Your task to perform on an android device: remove spam from my inbox in the gmail app Image 0: 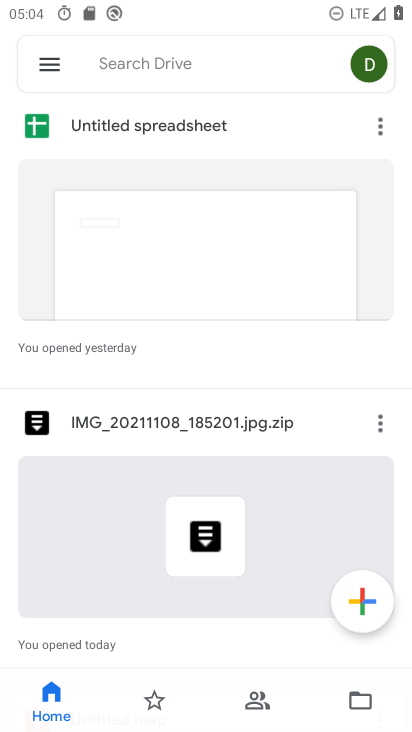
Step 0: press back button
Your task to perform on an android device: remove spam from my inbox in the gmail app Image 1: 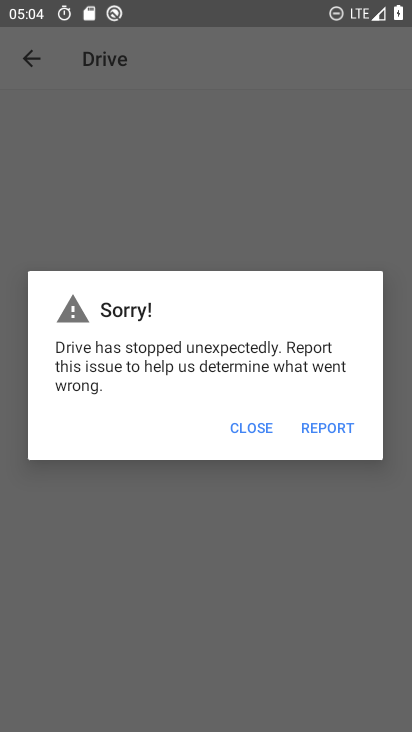
Step 1: press back button
Your task to perform on an android device: remove spam from my inbox in the gmail app Image 2: 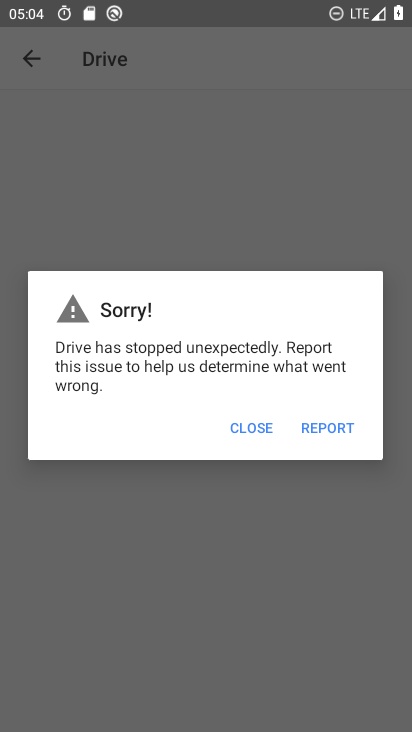
Step 2: press home button
Your task to perform on an android device: remove spam from my inbox in the gmail app Image 3: 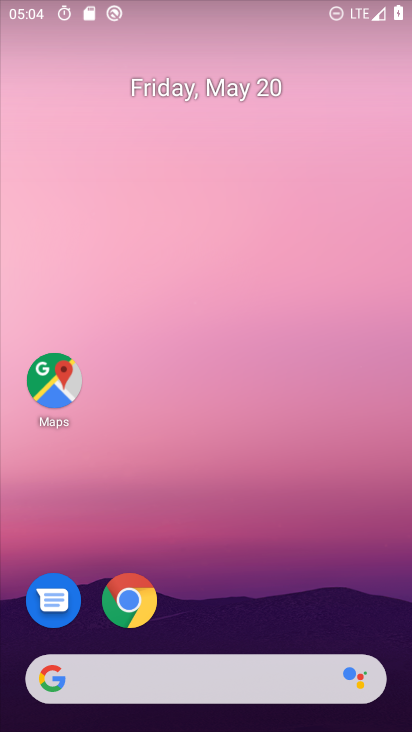
Step 3: drag from (220, 564) to (289, 93)
Your task to perform on an android device: remove spam from my inbox in the gmail app Image 4: 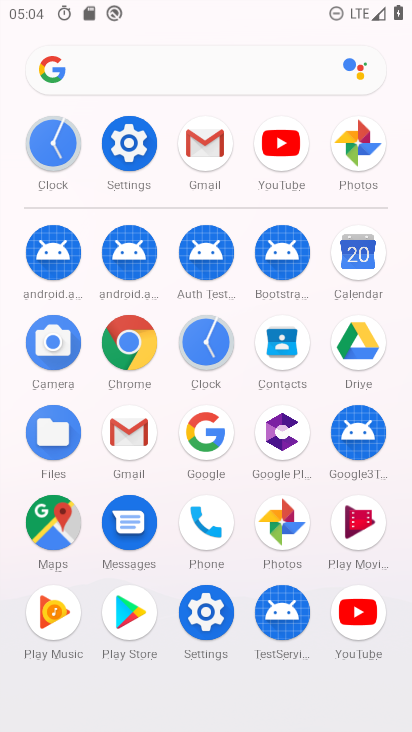
Step 4: click (199, 145)
Your task to perform on an android device: remove spam from my inbox in the gmail app Image 5: 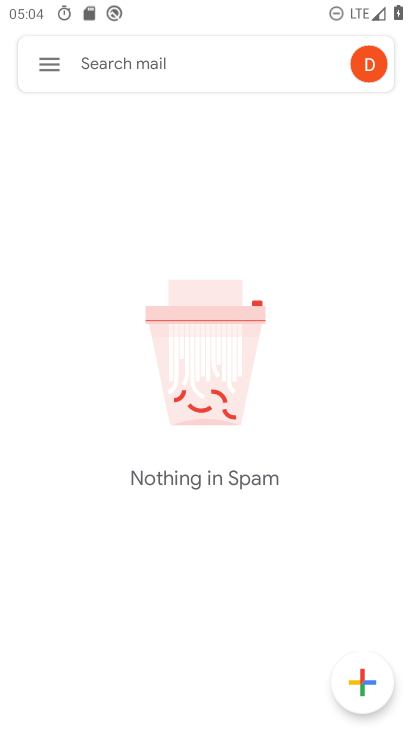
Step 5: click (30, 56)
Your task to perform on an android device: remove spam from my inbox in the gmail app Image 6: 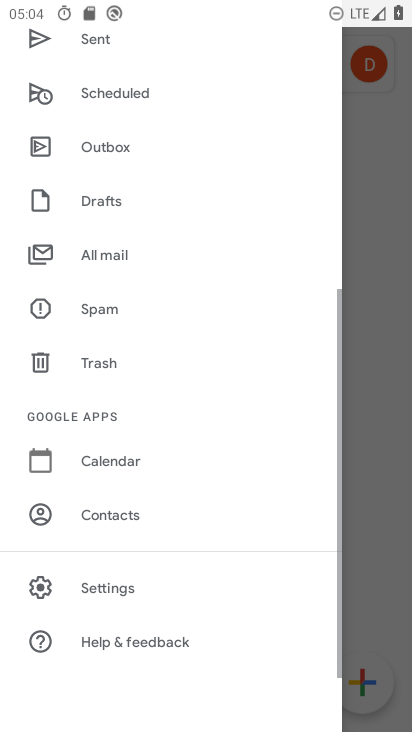
Step 6: click (87, 295)
Your task to perform on an android device: remove spam from my inbox in the gmail app Image 7: 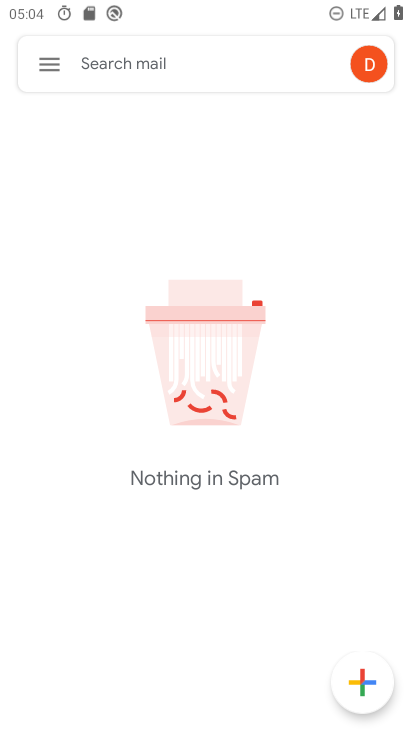
Step 7: task complete